Your task to perform on an android device: change the clock display to digital Image 0: 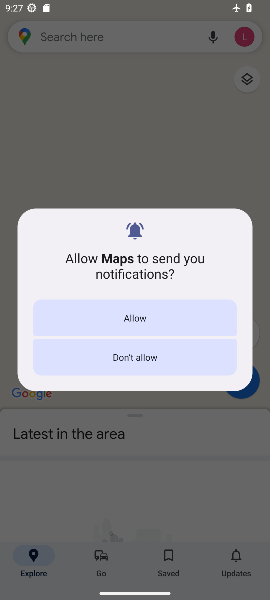
Step 0: press home button
Your task to perform on an android device: change the clock display to digital Image 1: 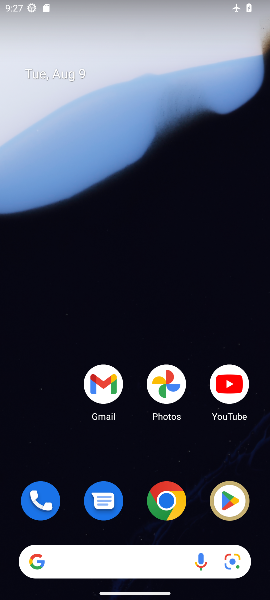
Step 1: drag from (130, 529) to (154, 159)
Your task to perform on an android device: change the clock display to digital Image 2: 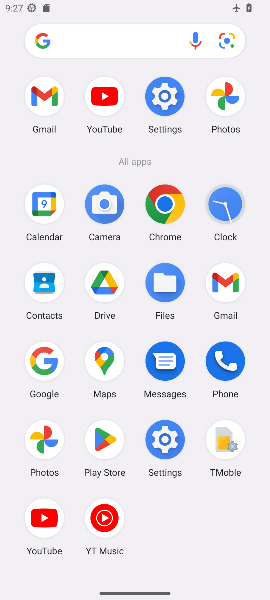
Step 2: click (163, 97)
Your task to perform on an android device: change the clock display to digital Image 3: 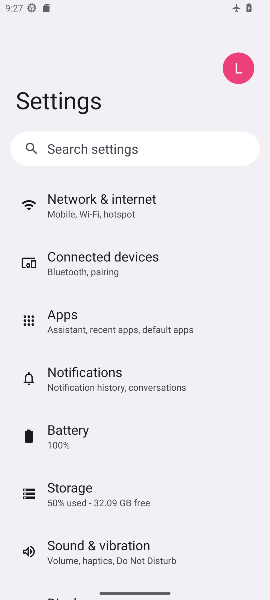
Step 3: press back button
Your task to perform on an android device: change the clock display to digital Image 4: 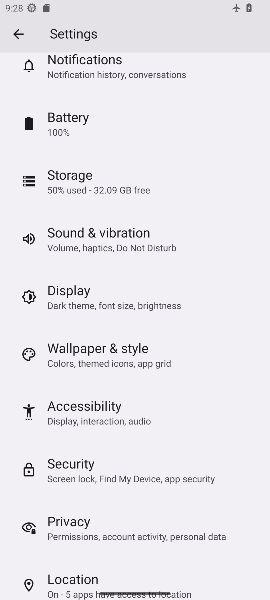
Step 4: press back button
Your task to perform on an android device: change the clock display to digital Image 5: 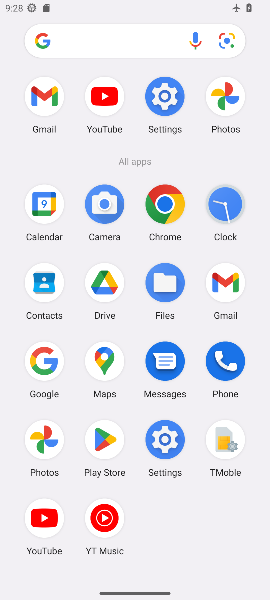
Step 5: click (231, 209)
Your task to perform on an android device: change the clock display to digital Image 6: 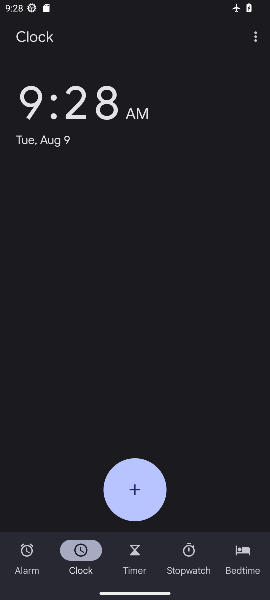
Step 6: click (256, 35)
Your task to perform on an android device: change the clock display to digital Image 7: 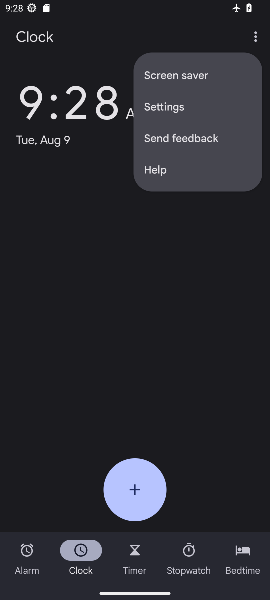
Step 7: click (150, 108)
Your task to perform on an android device: change the clock display to digital Image 8: 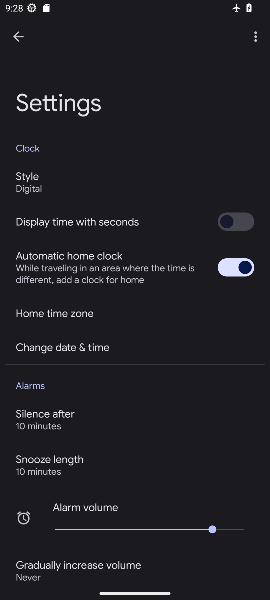
Step 8: task complete